Your task to perform on an android device: check android version Image 0: 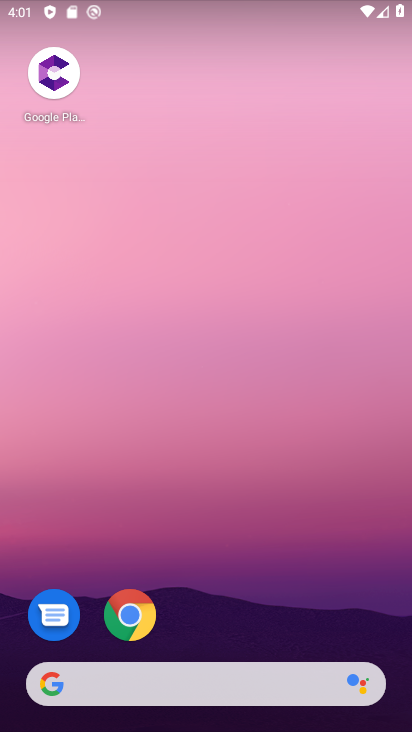
Step 0: drag from (232, 657) to (196, 77)
Your task to perform on an android device: check android version Image 1: 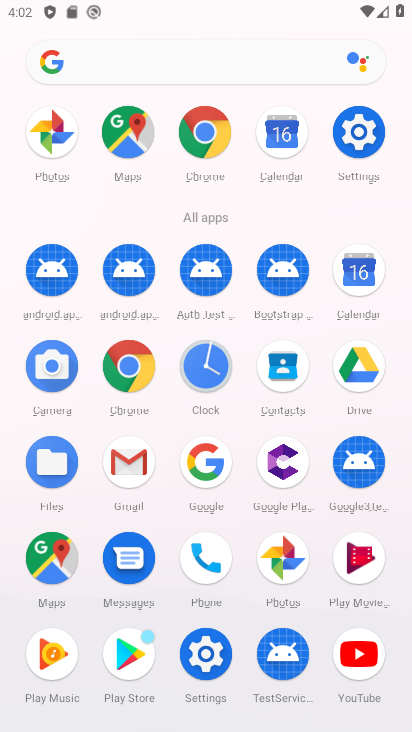
Step 1: click (369, 126)
Your task to perform on an android device: check android version Image 2: 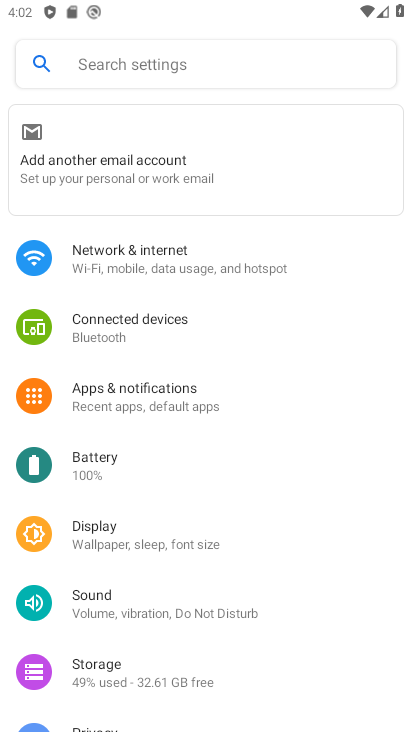
Step 2: drag from (243, 600) to (182, 8)
Your task to perform on an android device: check android version Image 3: 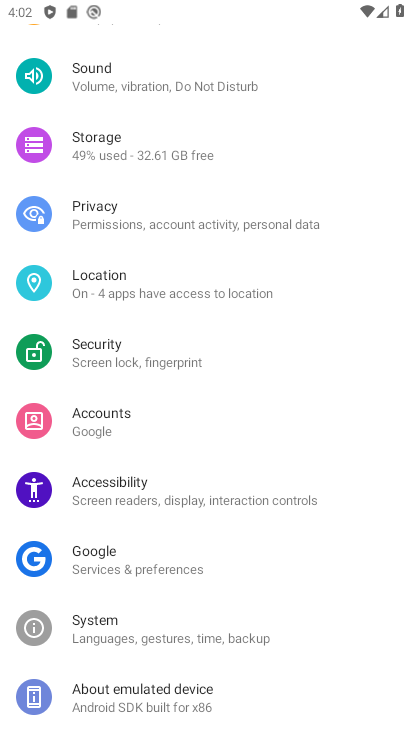
Step 3: drag from (129, 617) to (77, 245)
Your task to perform on an android device: check android version Image 4: 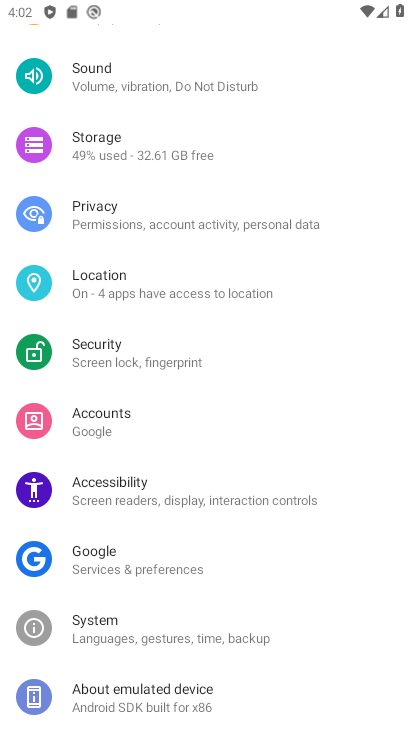
Step 4: click (116, 678)
Your task to perform on an android device: check android version Image 5: 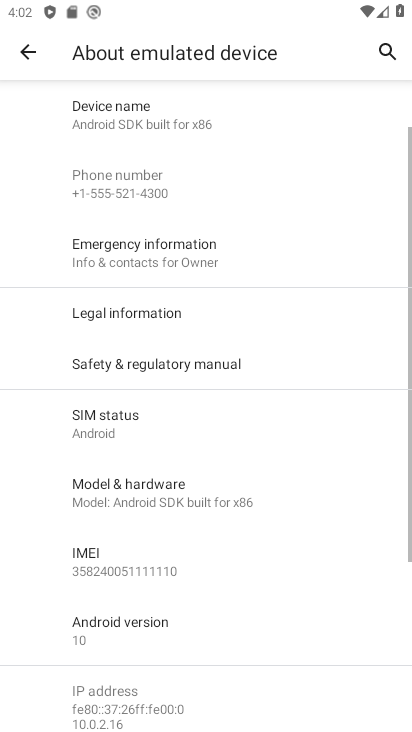
Step 5: click (147, 610)
Your task to perform on an android device: check android version Image 6: 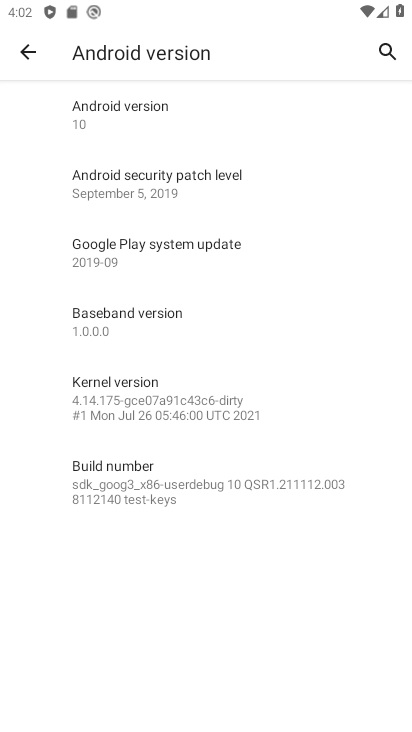
Step 6: task complete